Your task to perform on an android device: Clear the shopping cart on walmart. Add razer deathadder to the cart on walmart Image 0: 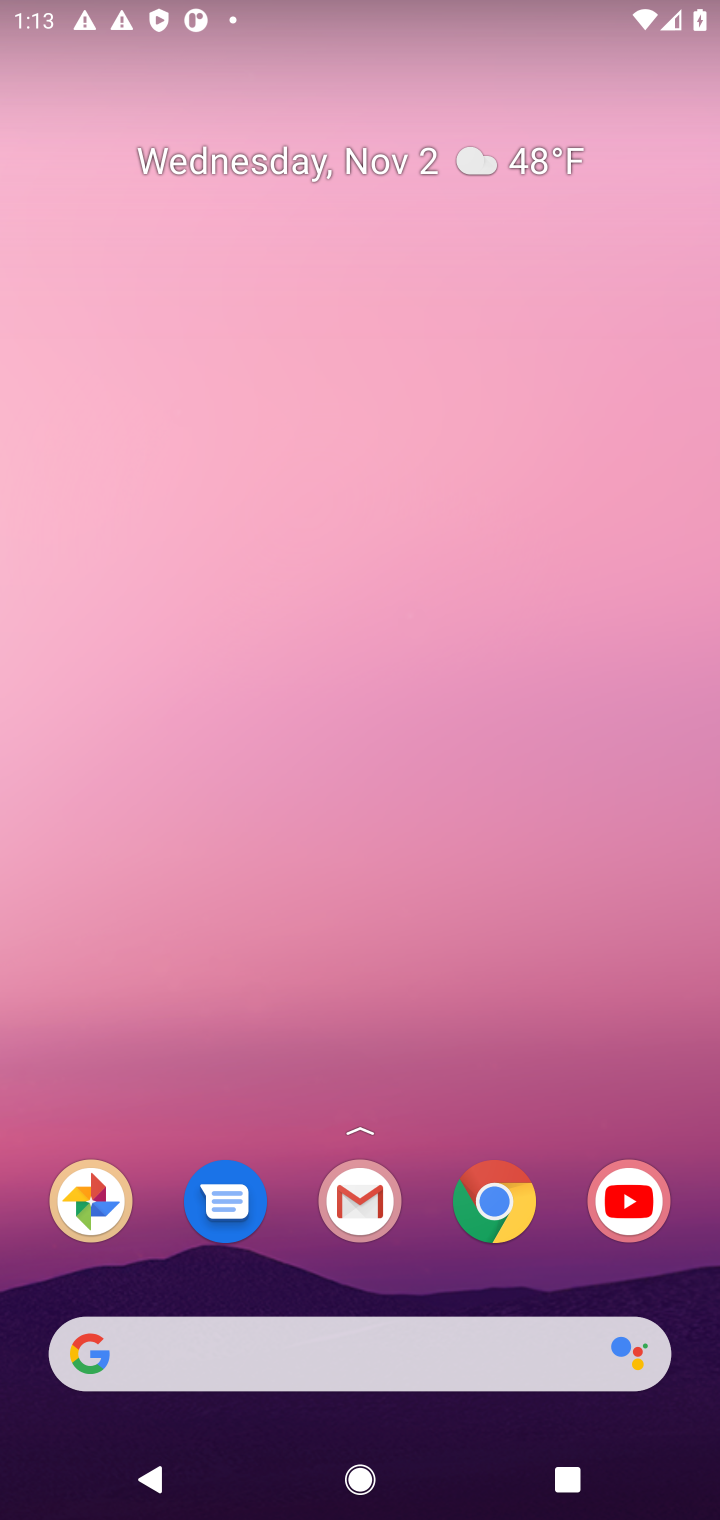
Step 0: click (477, 1191)
Your task to perform on an android device: Clear the shopping cart on walmart. Add razer deathadder to the cart on walmart Image 1: 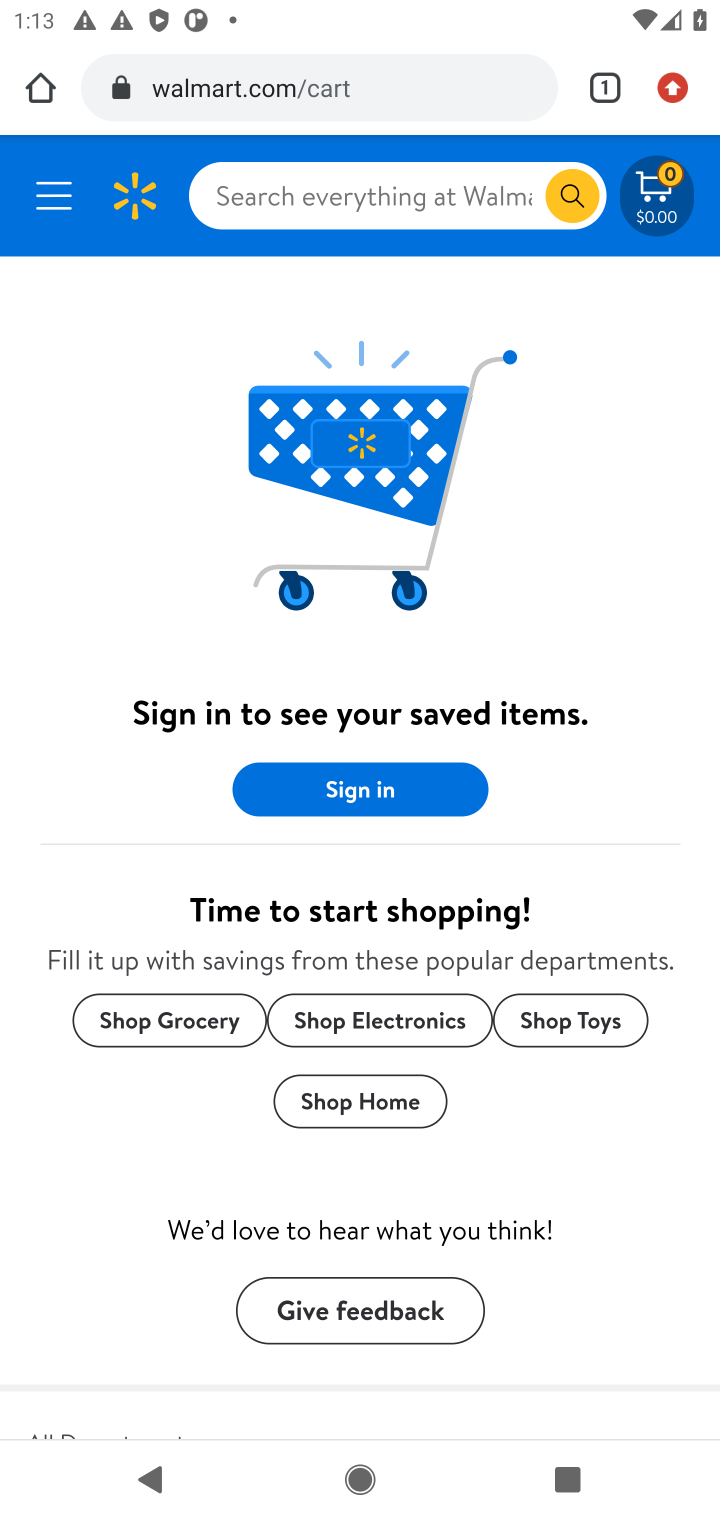
Step 1: click (652, 180)
Your task to perform on an android device: Clear the shopping cart on walmart. Add razer deathadder to the cart on walmart Image 2: 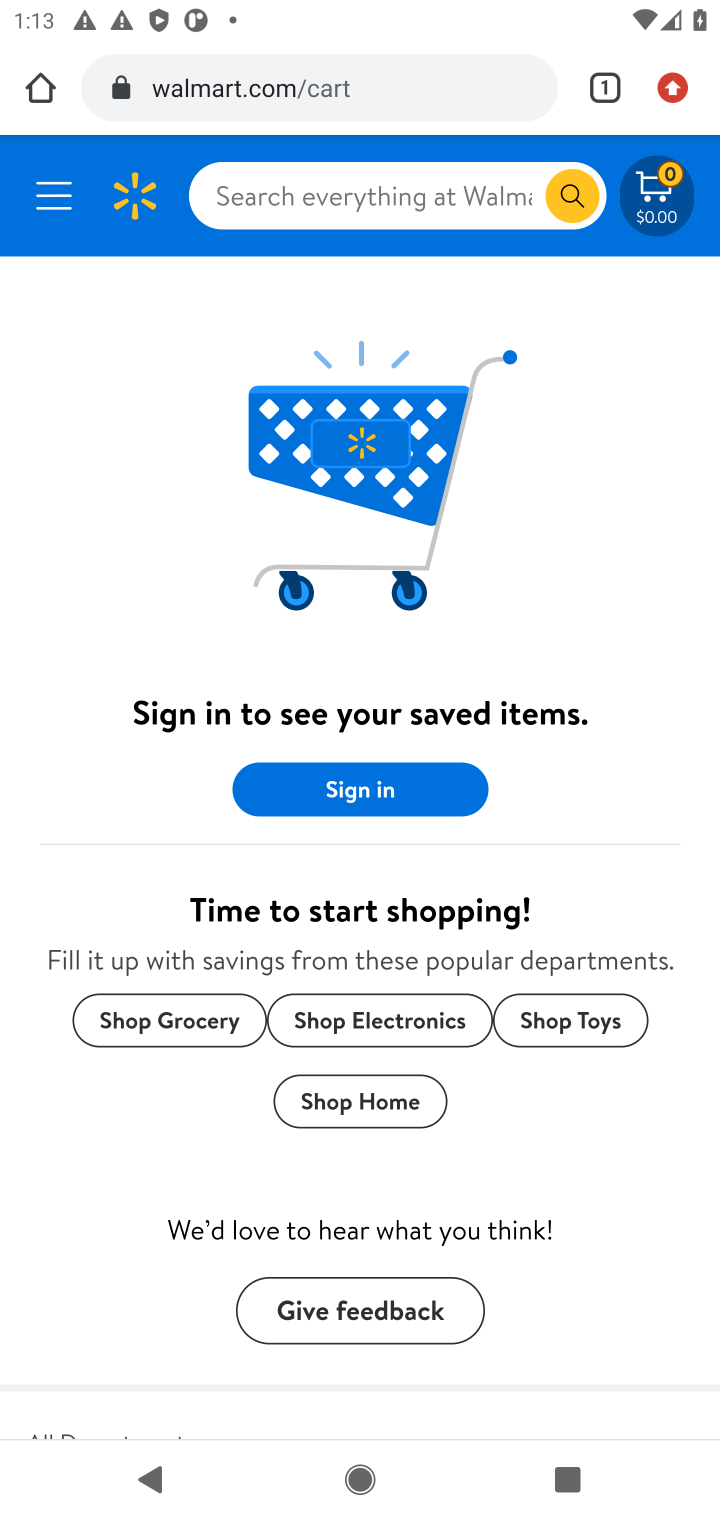
Step 2: click (391, 199)
Your task to perform on an android device: Clear the shopping cart on walmart. Add razer deathadder to the cart on walmart Image 3: 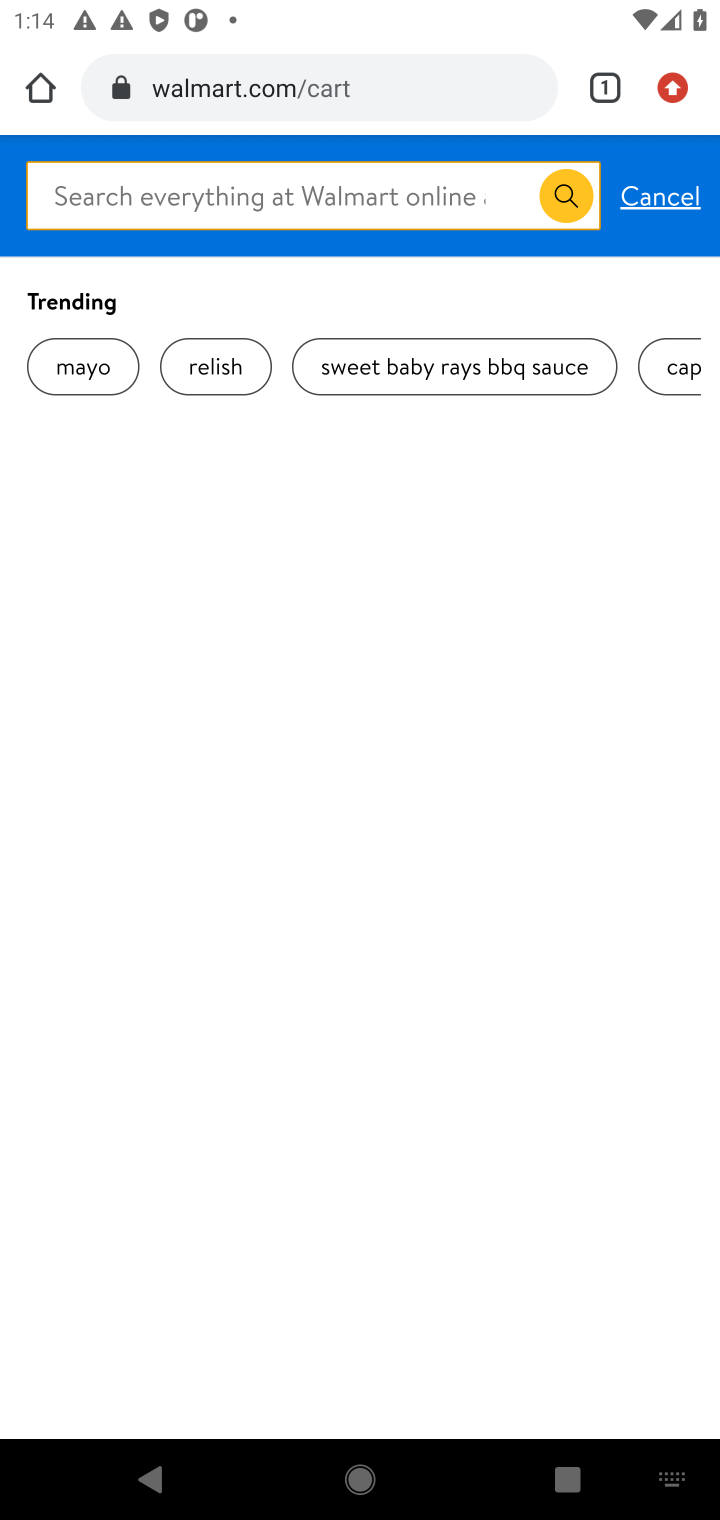
Step 3: type "razer deathadder"
Your task to perform on an android device: Clear the shopping cart on walmart. Add razer deathadder to the cart on walmart Image 4: 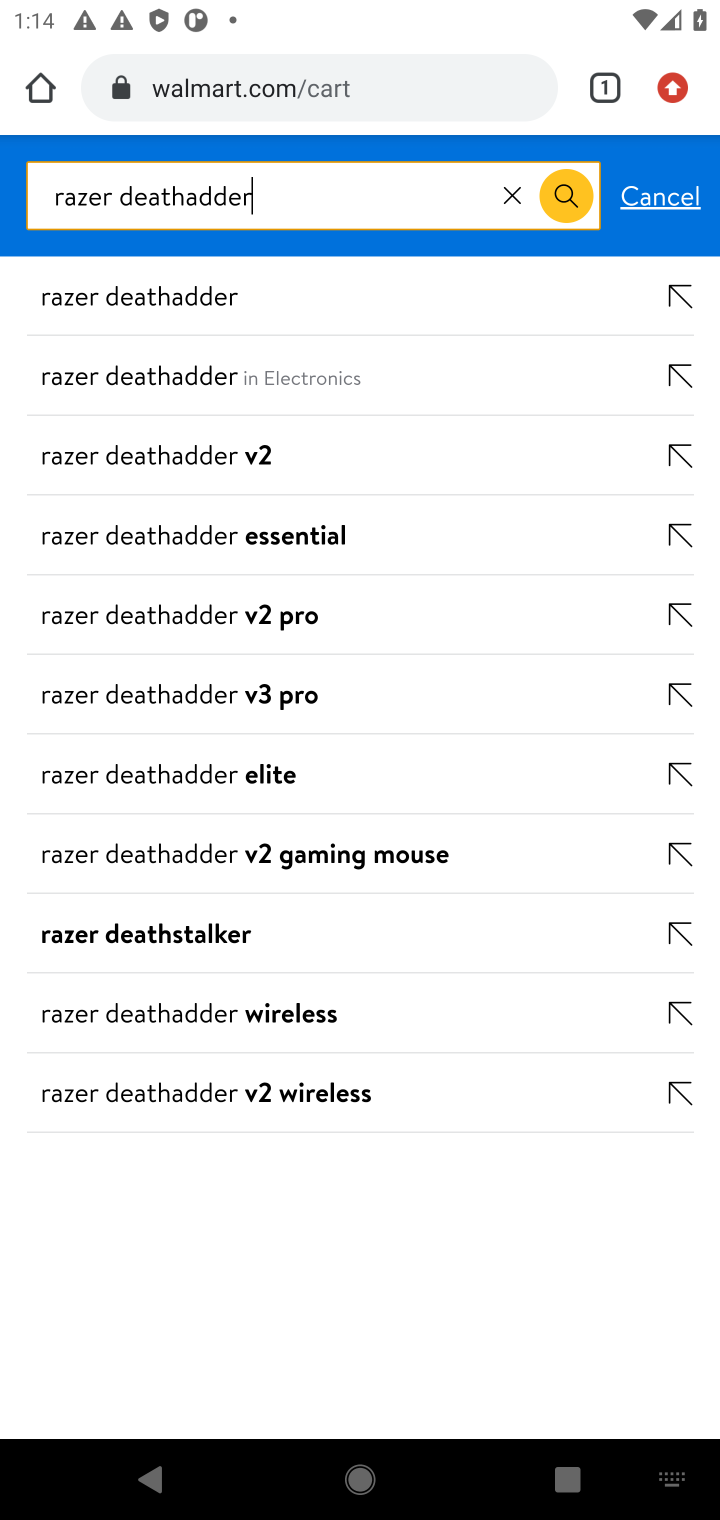
Step 4: press enter
Your task to perform on an android device: Clear the shopping cart on walmart. Add razer deathadder to the cart on walmart Image 5: 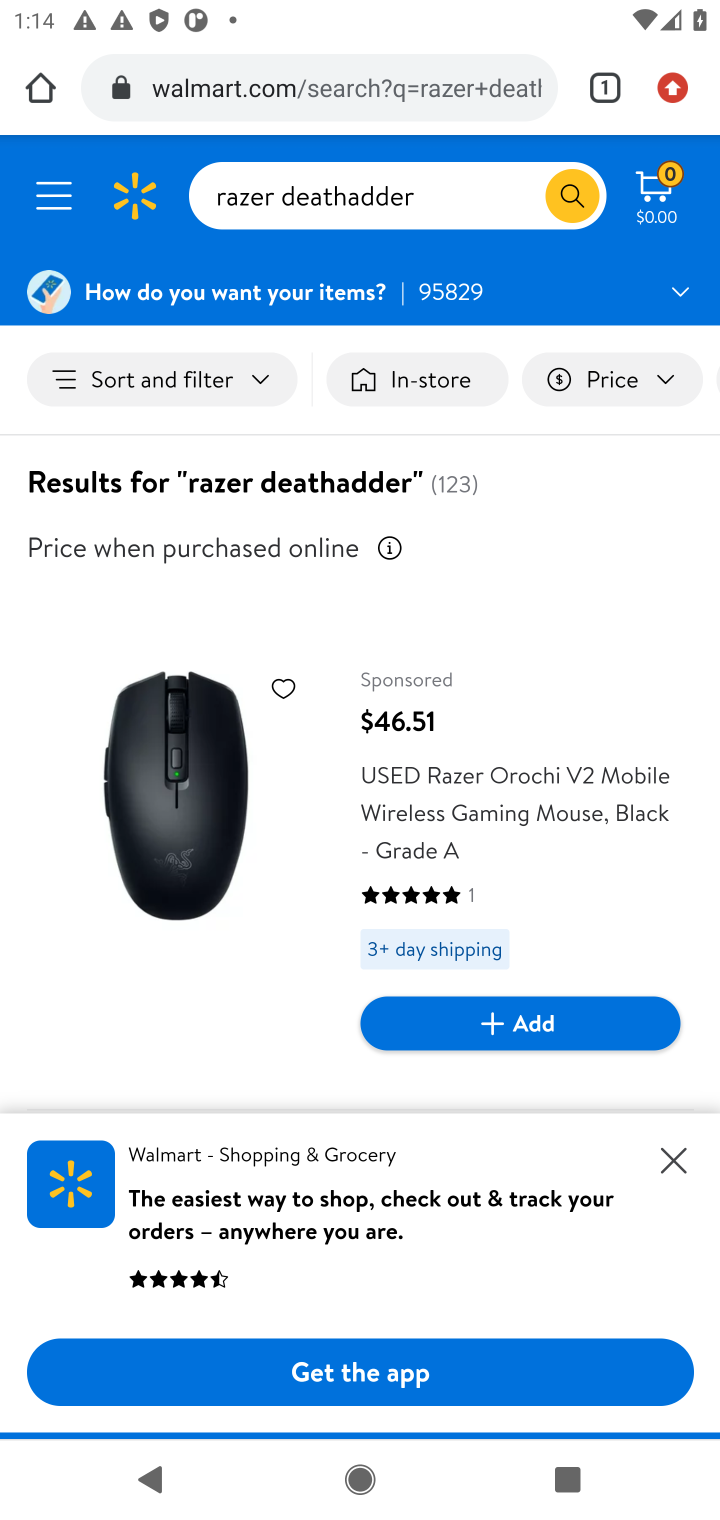
Step 5: drag from (555, 846) to (545, 514)
Your task to perform on an android device: Clear the shopping cart on walmart. Add razer deathadder to the cart on walmart Image 6: 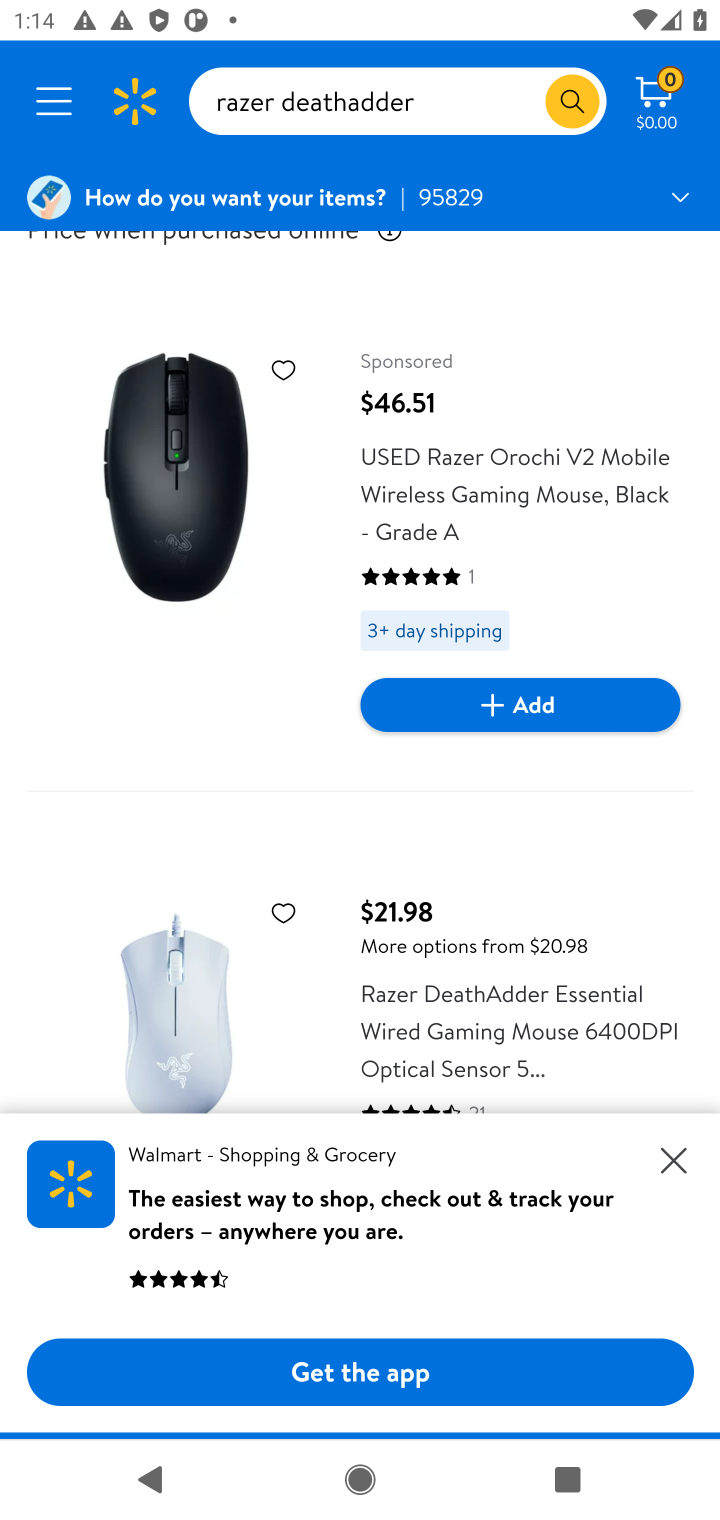
Step 6: click (205, 1017)
Your task to perform on an android device: Clear the shopping cart on walmart. Add razer deathadder to the cart on walmart Image 7: 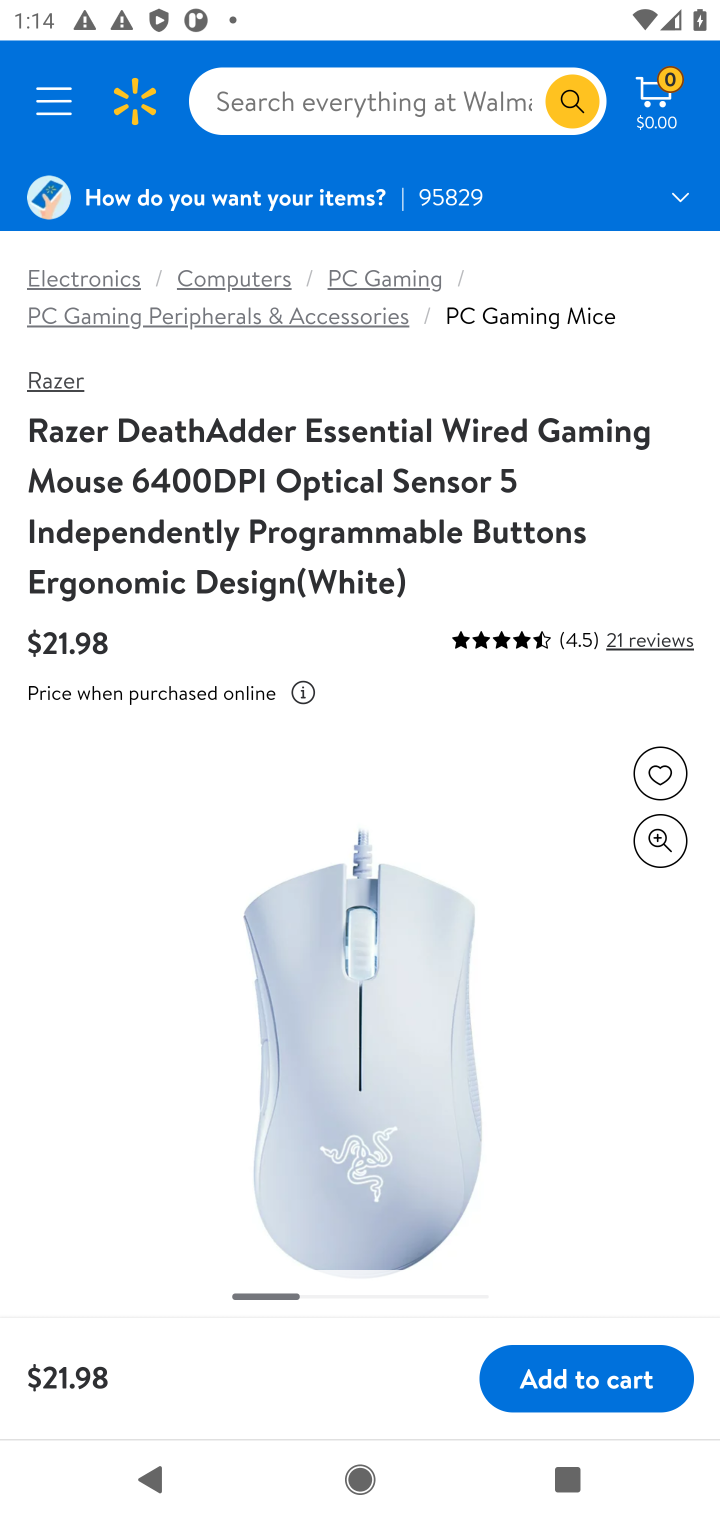
Step 7: drag from (449, 990) to (395, 444)
Your task to perform on an android device: Clear the shopping cart on walmart. Add razer deathadder to the cart on walmart Image 8: 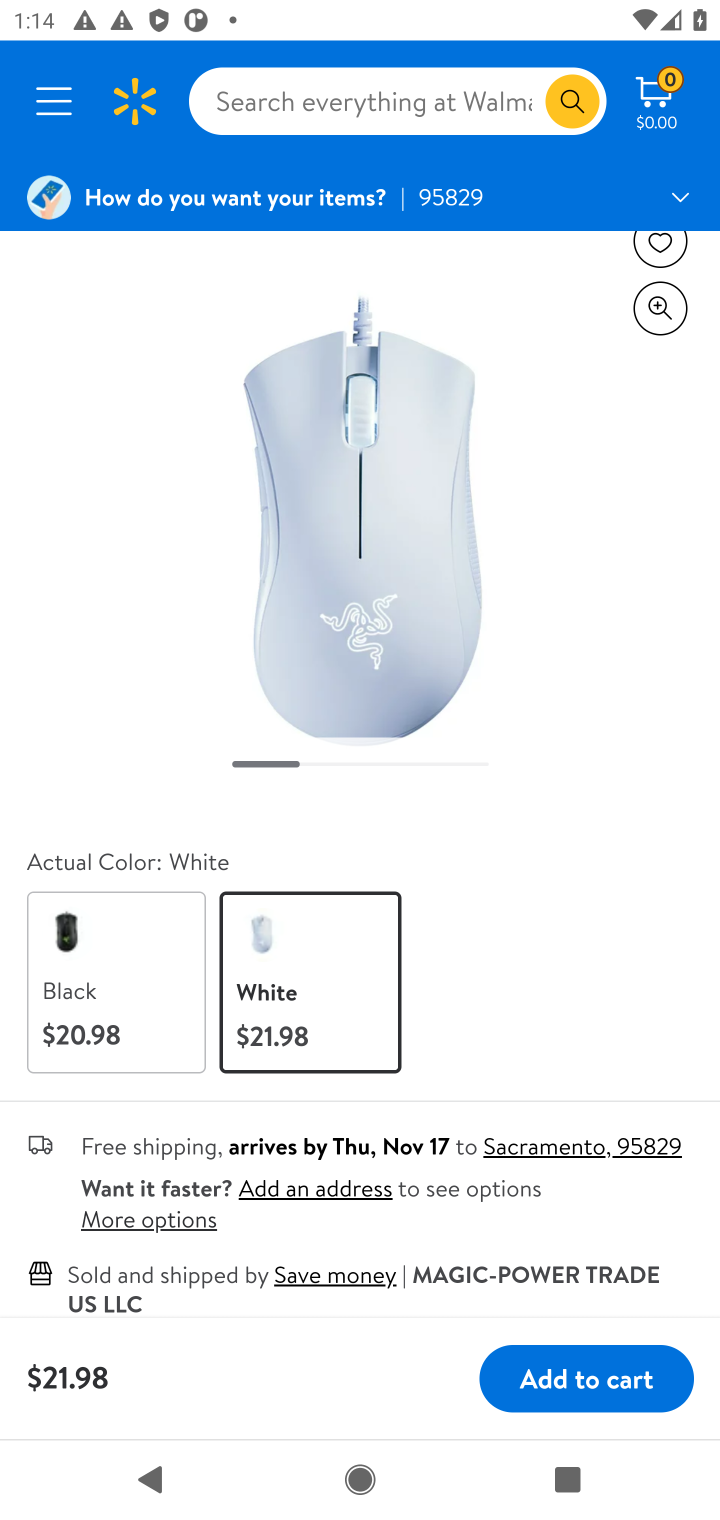
Step 8: click (587, 1380)
Your task to perform on an android device: Clear the shopping cart on walmart. Add razer deathadder to the cart on walmart Image 9: 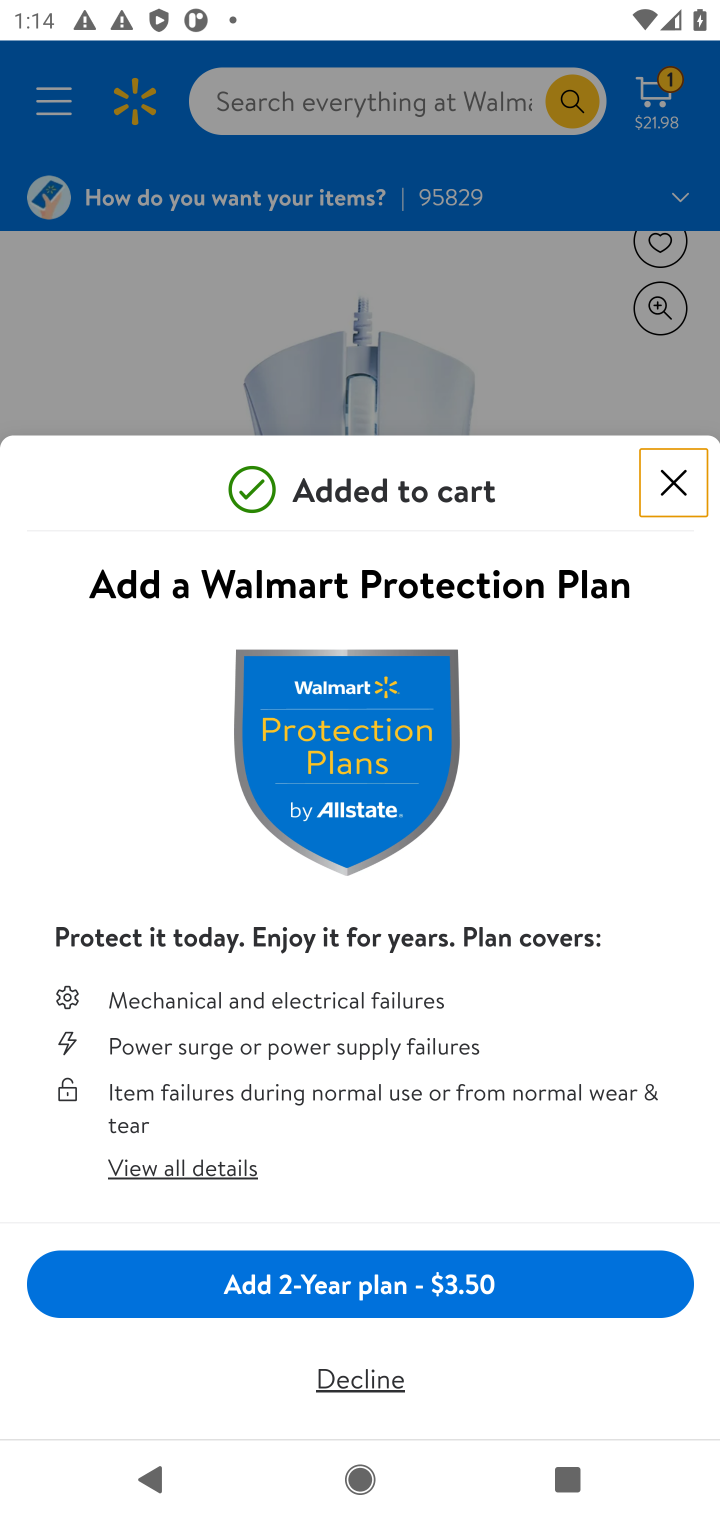
Step 9: task complete